Your task to perform on an android device: turn off smart reply in the gmail app Image 0: 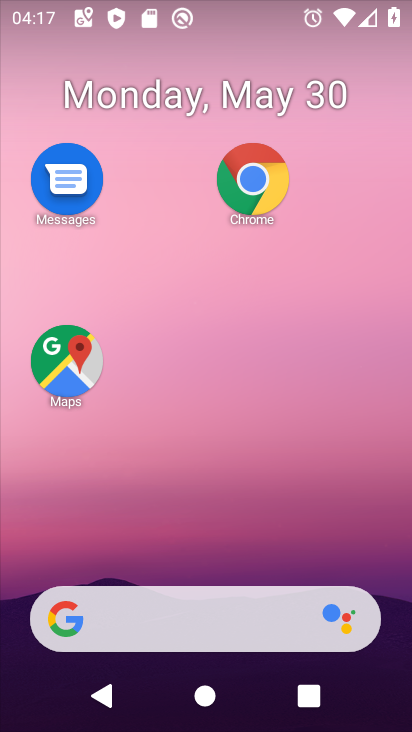
Step 0: drag from (248, 556) to (209, 2)
Your task to perform on an android device: turn off smart reply in the gmail app Image 1: 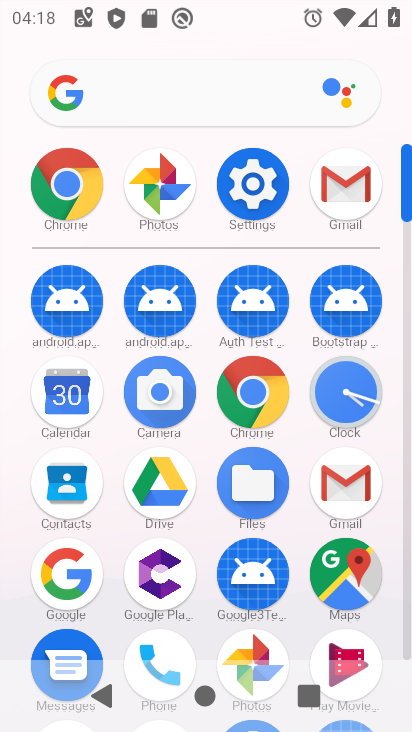
Step 1: click (361, 474)
Your task to perform on an android device: turn off smart reply in the gmail app Image 2: 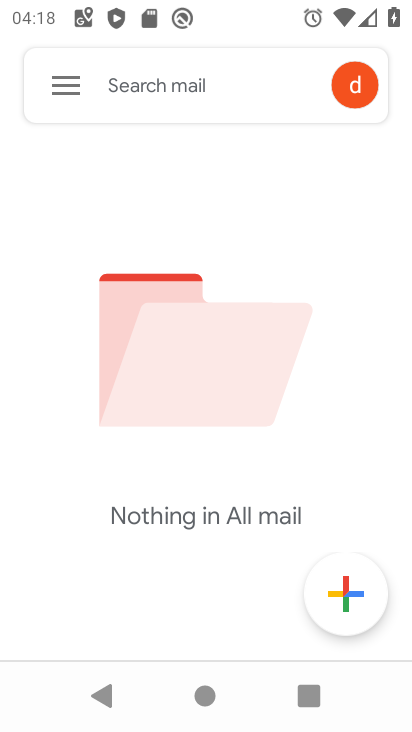
Step 2: click (71, 82)
Your task to perform on an android device: turn off smart reply in the gmail app Image 3: 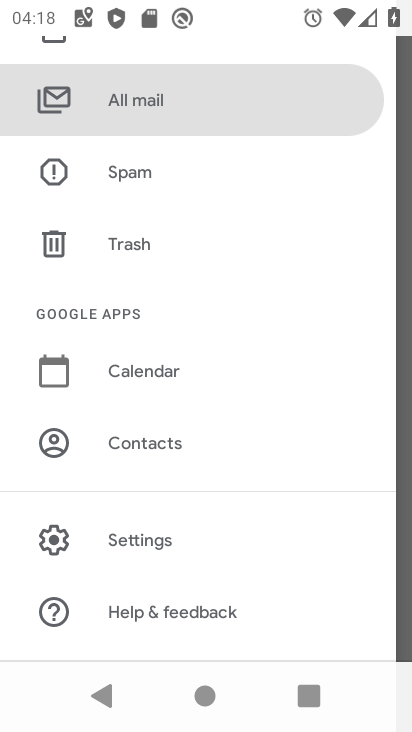
Step 3: click (153, 540)
Your task to perform on an android device: turn off smart reply in the gmail app Image 4: 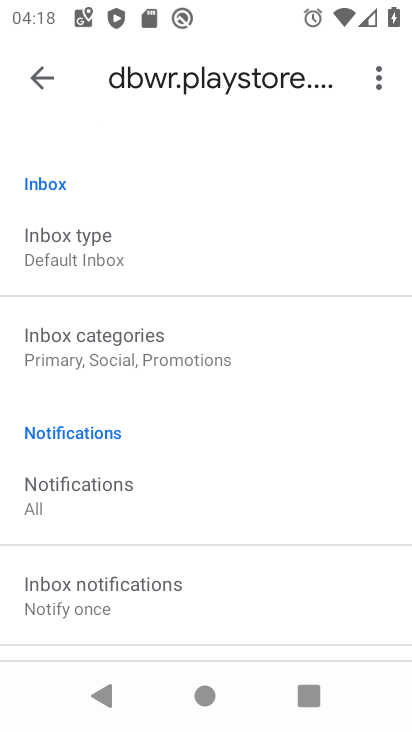
Step 4: task complete